Your task to perform on an android device: When is my next appointment? Image 0: 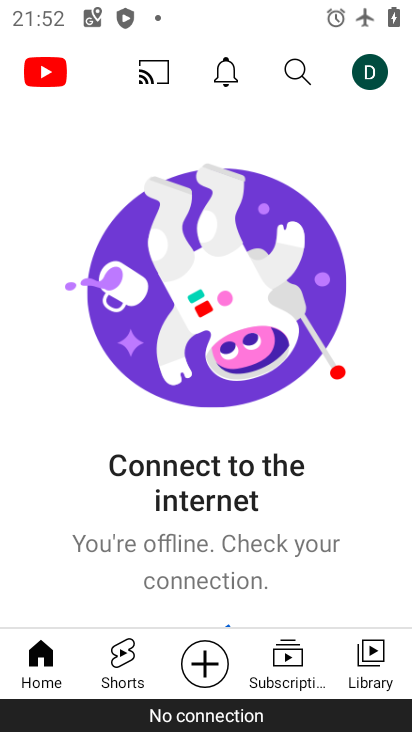
Step 0: press home button
Your task to perform on an android device: When is my next appointment? Image 1: 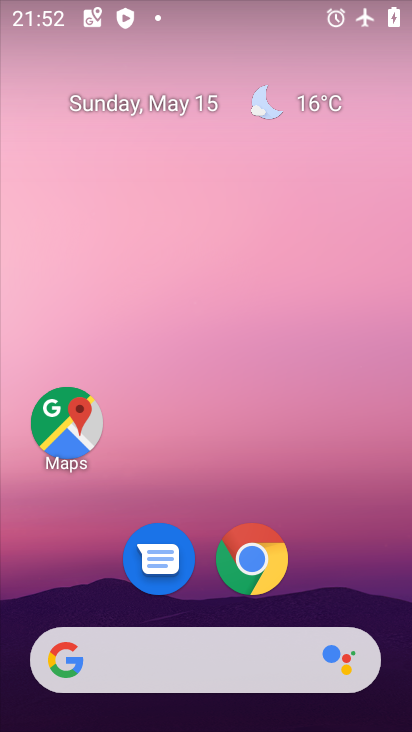
Step 1: drag from (309, 450) to (255, 100)
Your task to perform on an android device: When is my next appointment? Image 2: 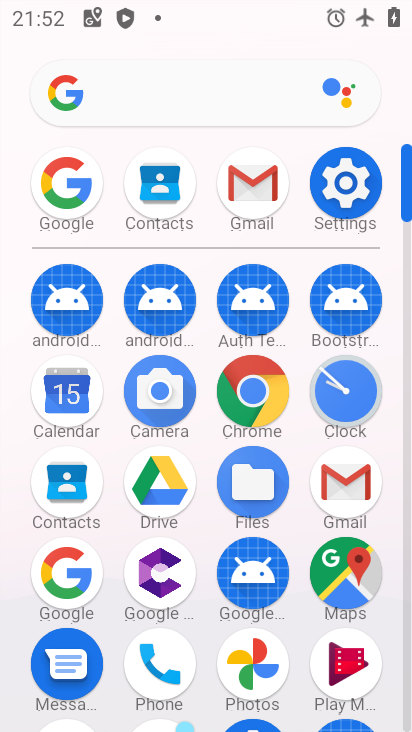
Step 2: click (55, 390)
Your task to perform on an android device: When is my next appointment? Image 3: 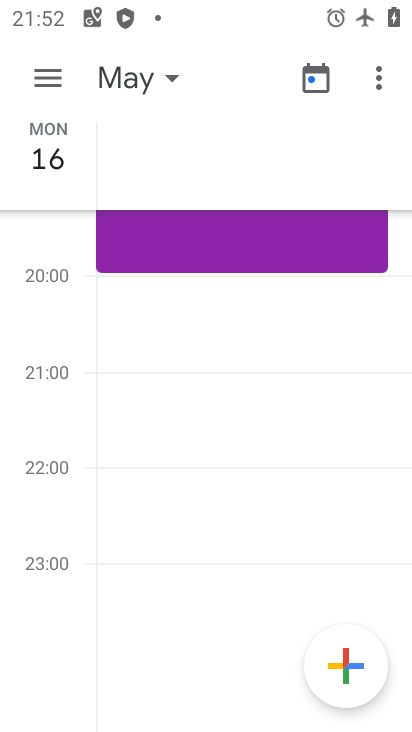
Step 3: click (45, 78)
Your task to perform on an android device: When is my next appointment? Image 4: 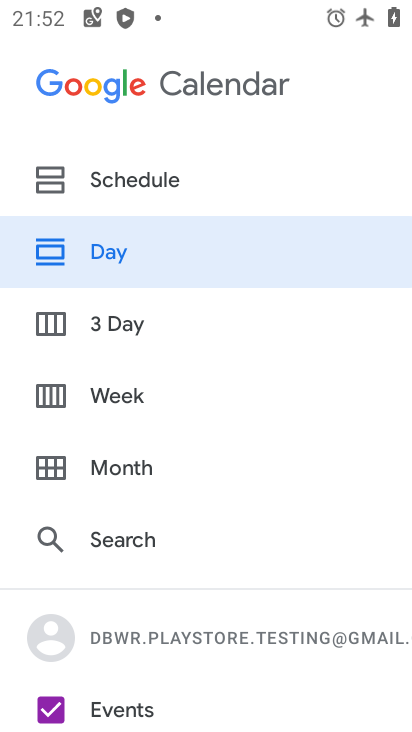
Step 4: task complete